Your task to perform on an android device: set the timer Image 0: 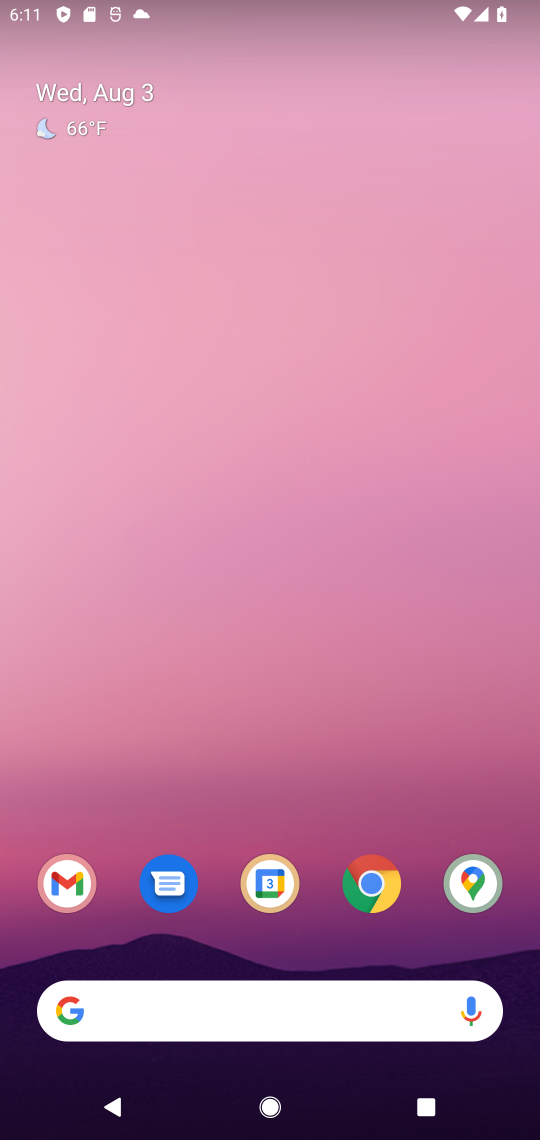
Step 0: drag from (246, 738) to (246, 146)
Your task to perform on an android device: set the timer Image 1: 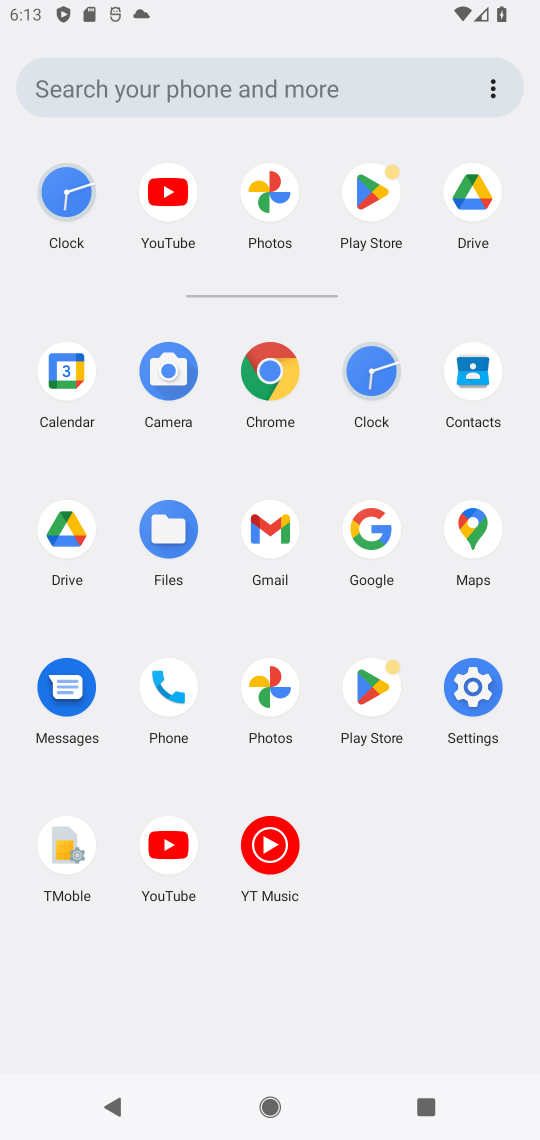
Step 1: click (391, 384)
Your task to perform on an android device: set the timer Image 2: 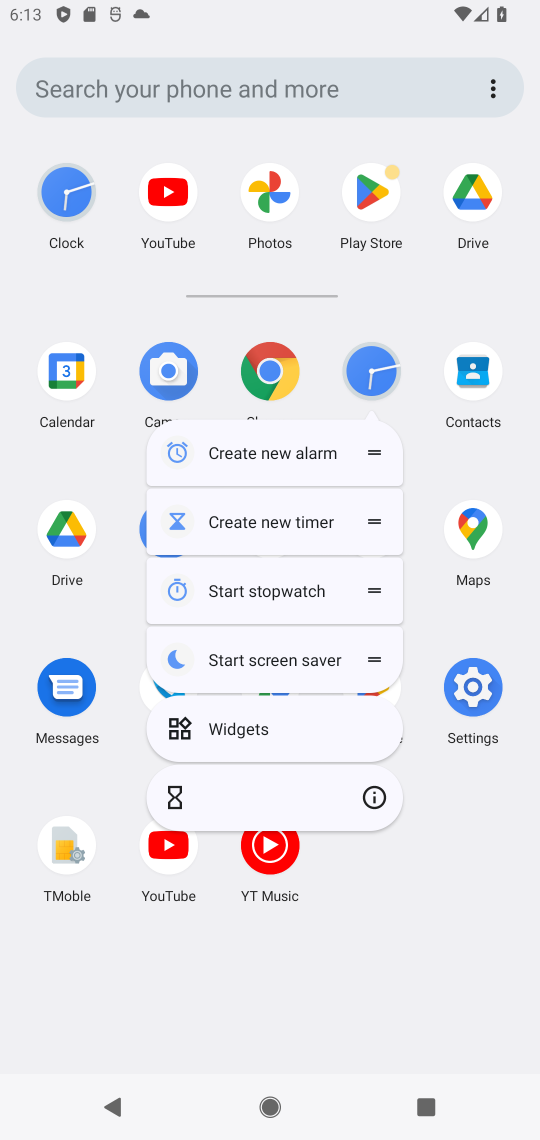
Step 2: click (391, 384)
Your task to perform on an android device: set the timer Image 3: 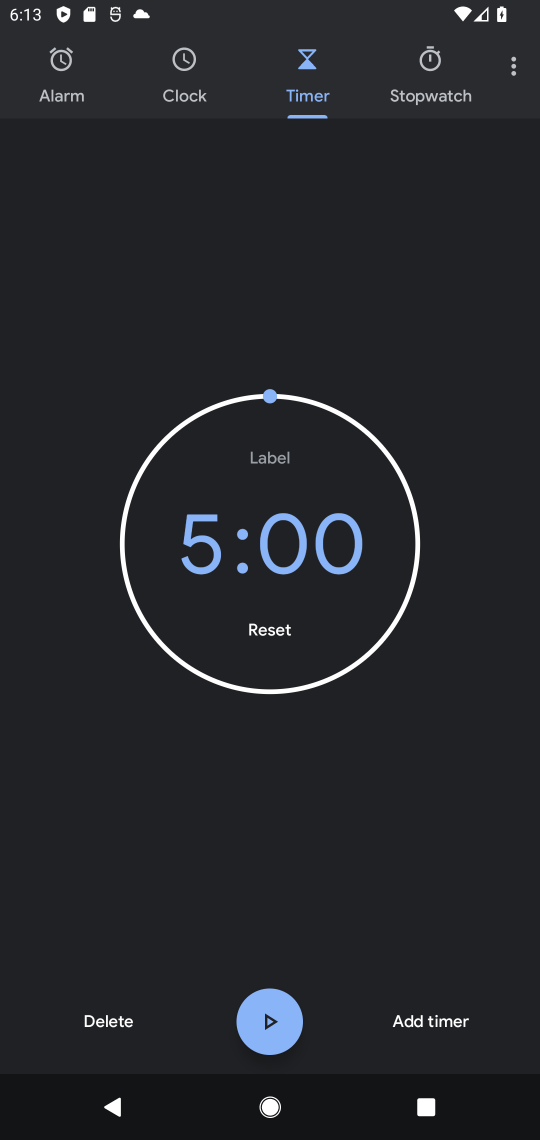
Step 3: click (279, 1025)
Your task to perform on an android device: set the timer Image 4: 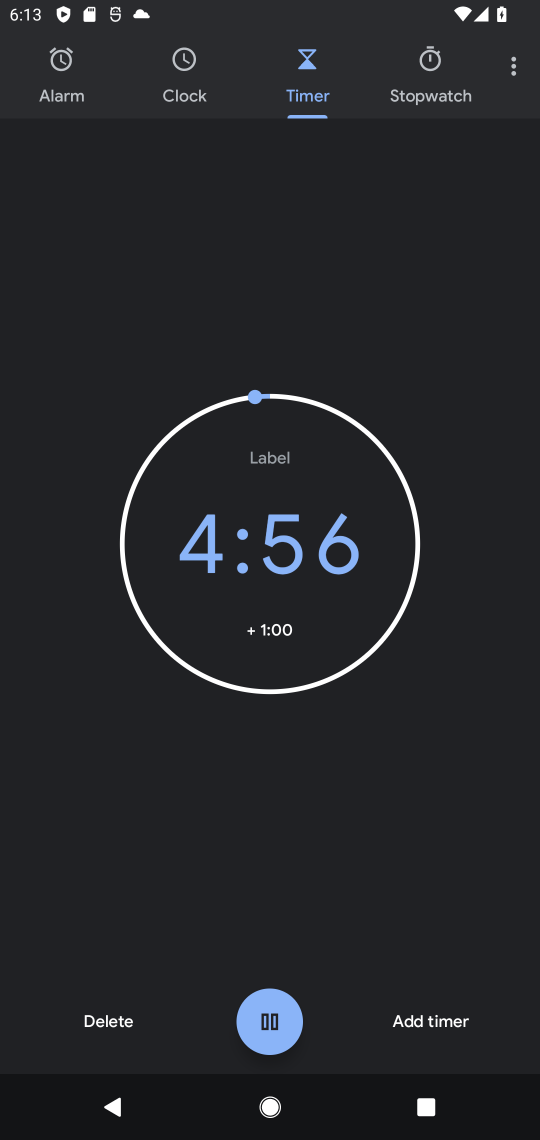
Step 4: task complete